Your task to perform on an android device: turn on improve location accuracy Image 0: 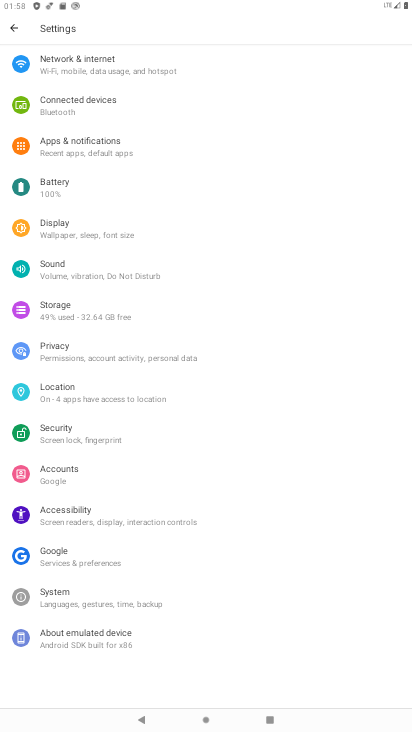
Step 0: click (94, 391)
Your task to perform on an android device: turn on improve location accuracy Image 1: 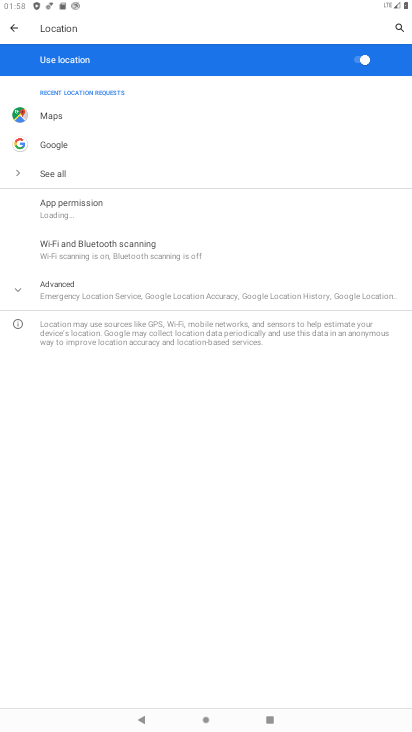
Step 1: click (125, 298)
Your task to perform on an android device: turn on improve location accuracy Image 2: 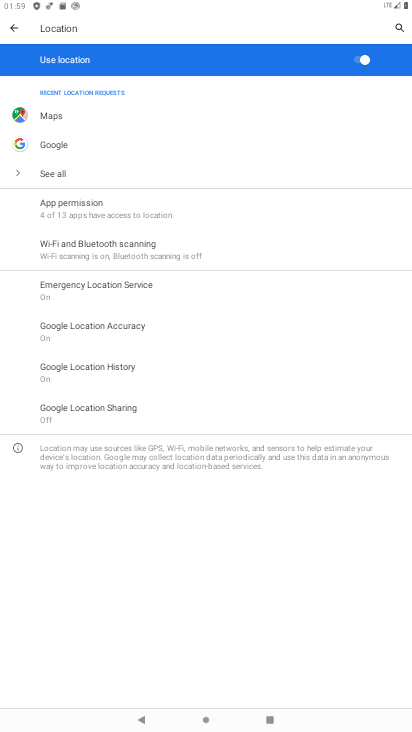
Step 2: click (128, 334)
Your task to perform on an android device: turn on improve location accuracy Image 3: 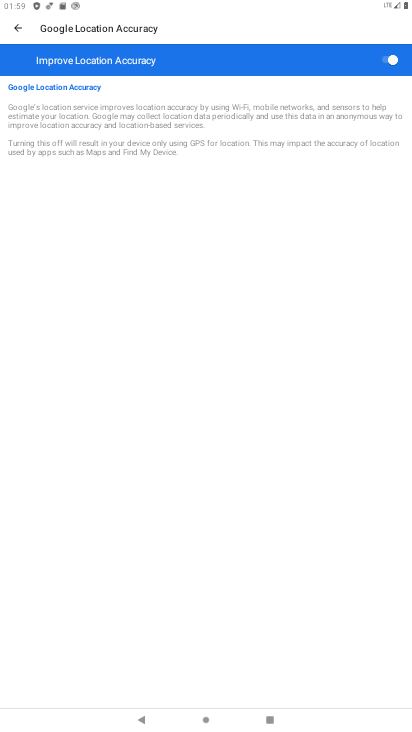
Step 3: task complete